Your task to perform on an android device: add a contact in the contacts app Image 0: 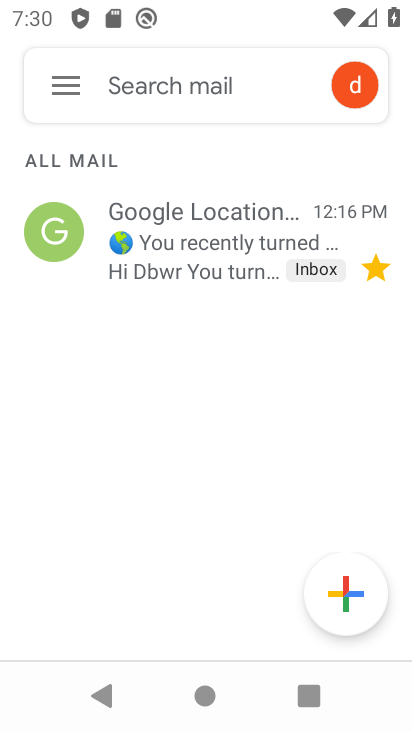
Step 0: press home button
Your task to perform on an android device: add a contact in the contacts app Image 1: 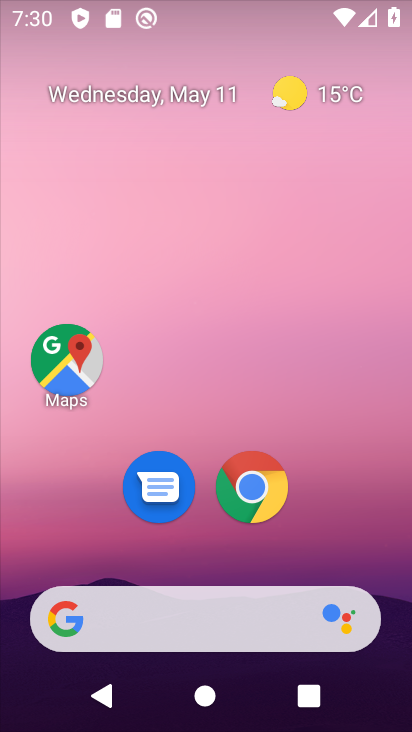
Step 1: drag from (276, 612) to (282, 166)
Your task to perform on an android device: add a contact in the contacts app Image 2: 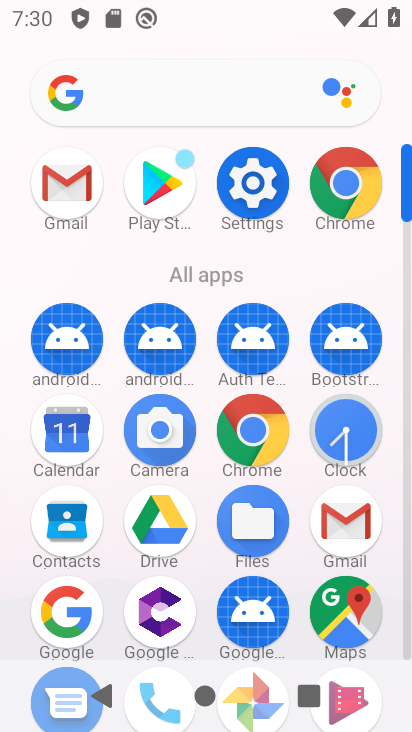
Step 2: drag from (114, 580) to (153, 472)
Your task to perform on an android device: add a contact in the contacts app Image 3: 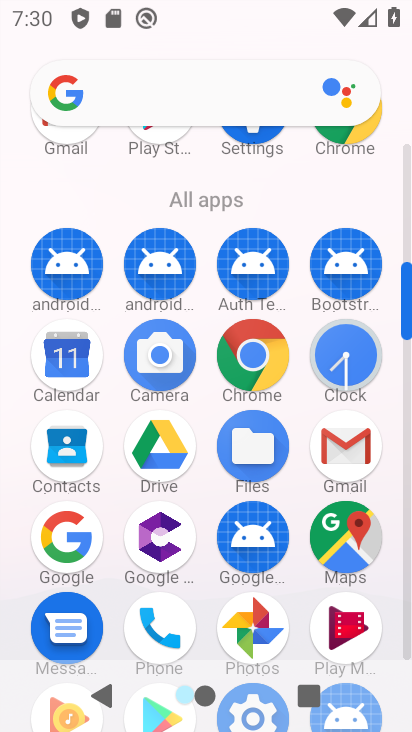
Step 3: click (152, 607)
Your task to perform on an android device: add a contact in the contacts app Image 4: 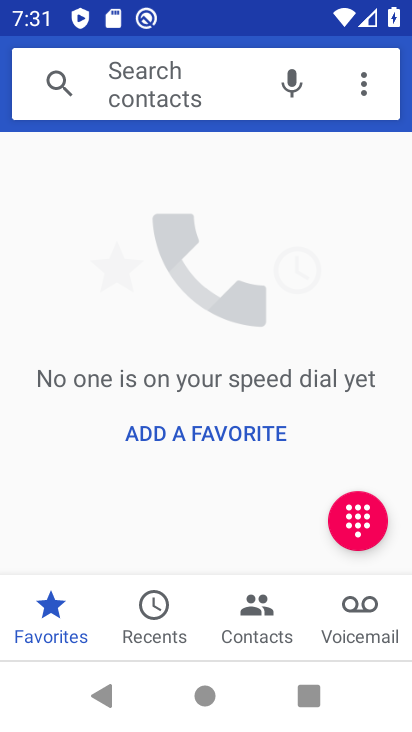
Step 4: click (264, 620)
Your task to perform on an android device: add a contact in the contacts app Image 5: 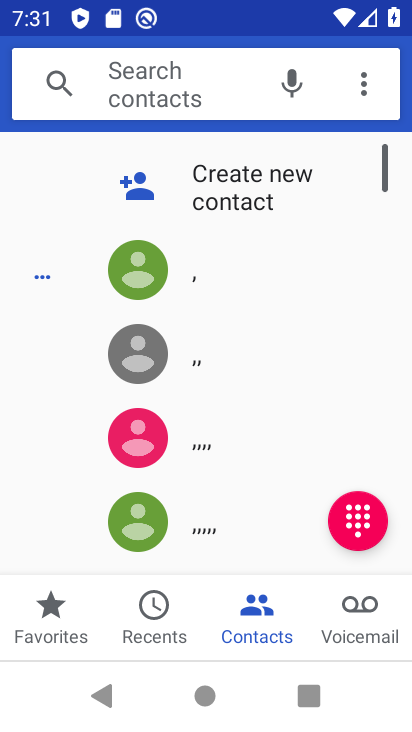
Step 5: click (241, 196)
Your task to perform on an android device: add a contact in the contacts app Image 6: 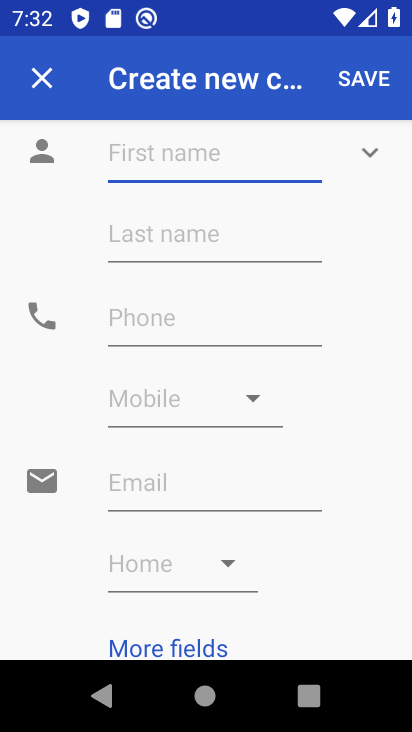
Step 6: click (191, 150)
Your task to perform on an android device: add a contact in the contacts app Image 7: 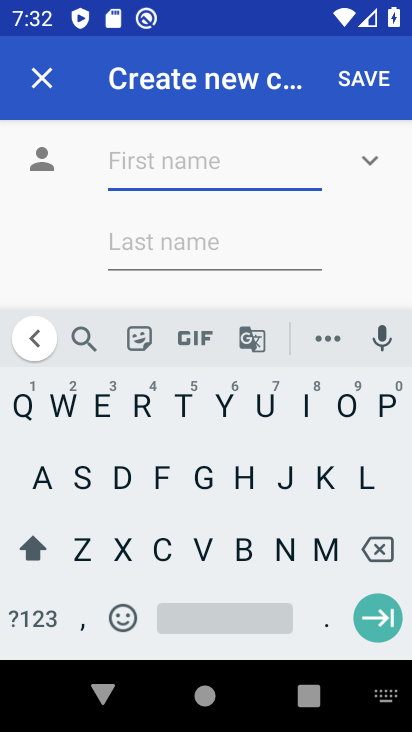
Step 7: click (133, 408)
Your task to perform on an android device: add a contact in the contacts app Image 8: 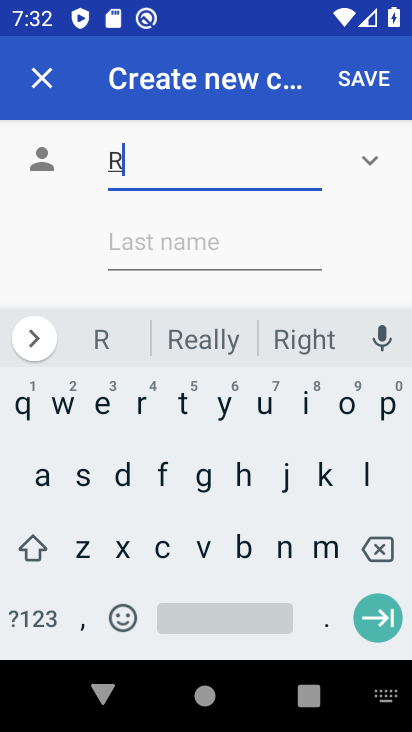
Step 8: click (299, 401)
Your task to perform on an android device: add a contact in the contacts app Image 9: 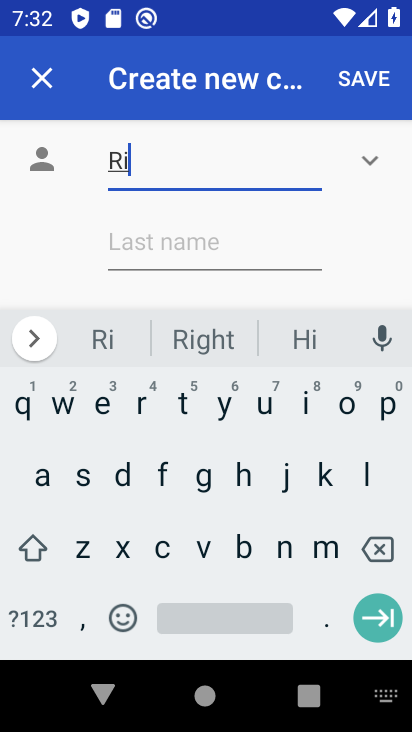
Step 9: click (199, 541)
Your task to perform on an android device: add a contact in the contacts app Image 10: 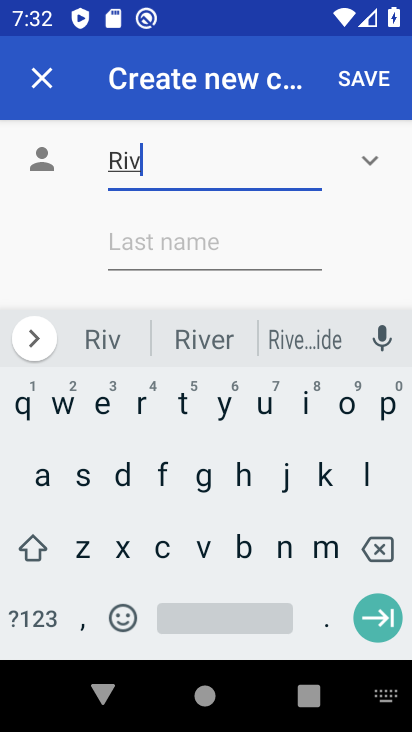
Step 10: click (37, 474)
Your task to perform on an android device: add a contact in the contacts app Image 11: 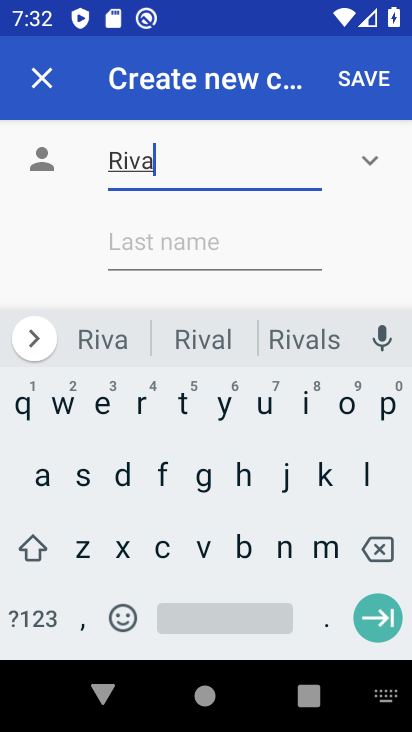
Step 11: drag from (143, 295) to (175, 171)
Your task to perform on an android device: add a contact in the contacts app Image 12: 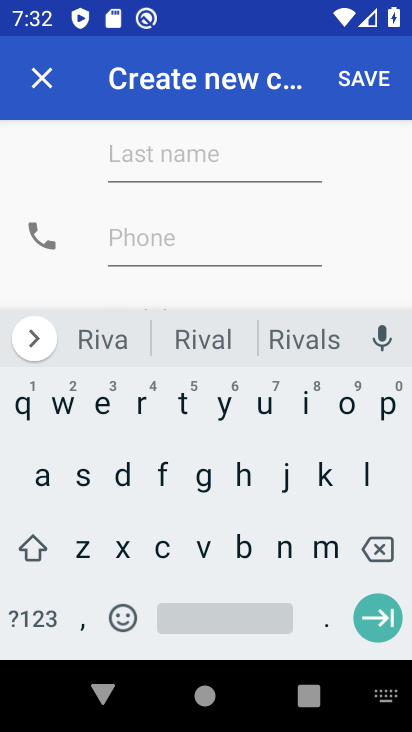
Step 12: click (119, 226)
Your task to perform on an android device: add a contact in the contacts app Image 13: 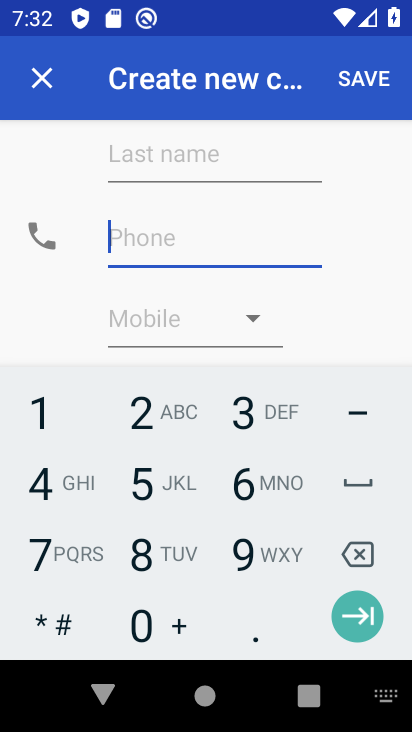
Step 13: click (254, 494)
Your task to perform on an android device: add a contact in the contacts app Image 14: 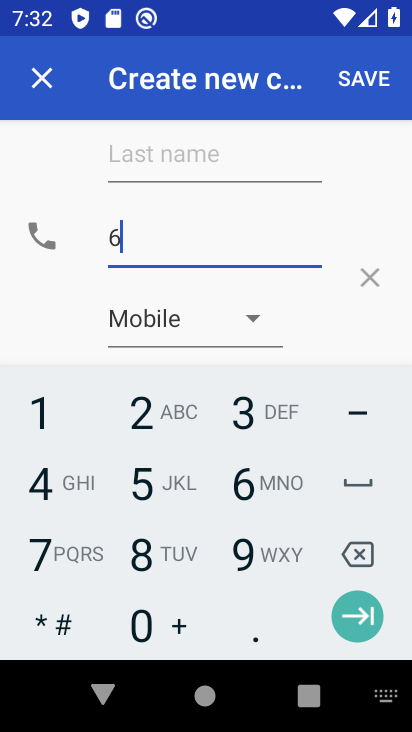
Step 14: click (166, 493)
Your task to perform on an android device: add a contact in the contacts app Image 15: 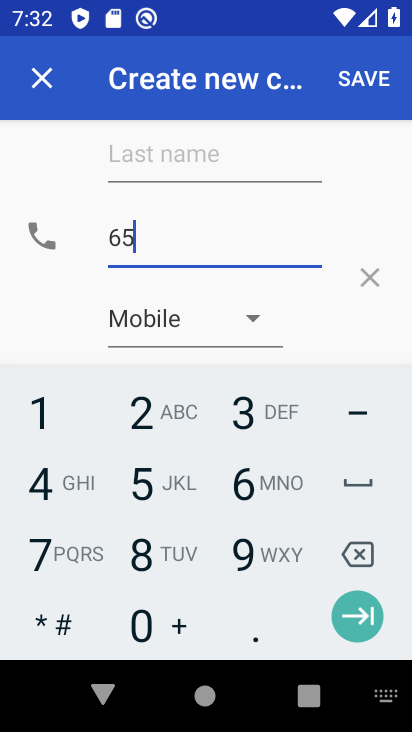
Step 15: click (151, 411)
Your task to perform on an android device: add a contact in the contacts app Image 16: 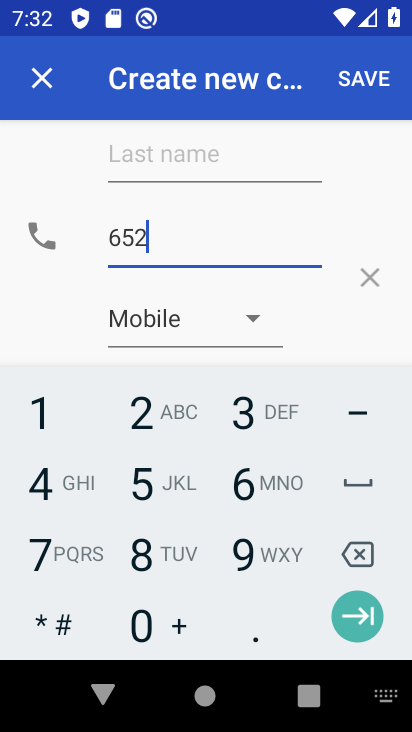
Step 16: click (59, 487)
Your task to perform on an android device: add a contact in the contacts app Image 17: 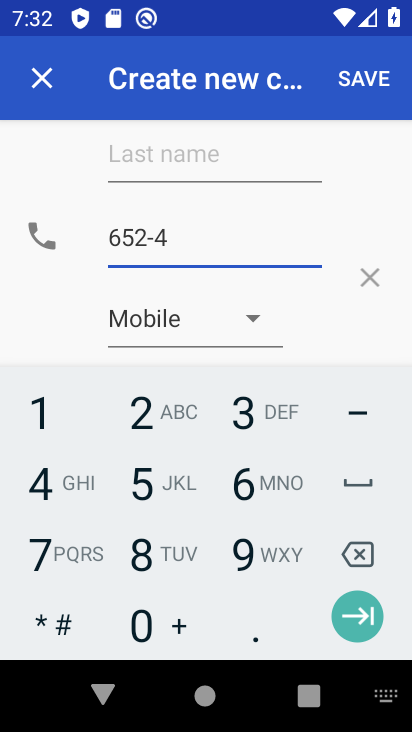
Step 17: click (245, 416)
Your task to perform on an android device: add a contact in the contacts app Image 18: 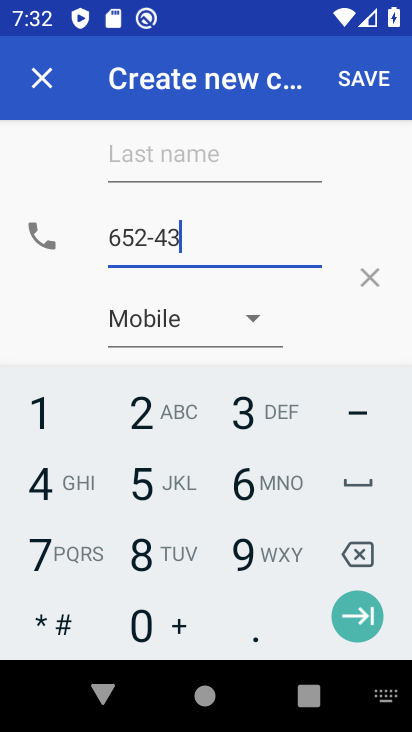
Step 18: click (163, 475)
Your task to perform on an android device: add a contact in the contacts app Image 19: 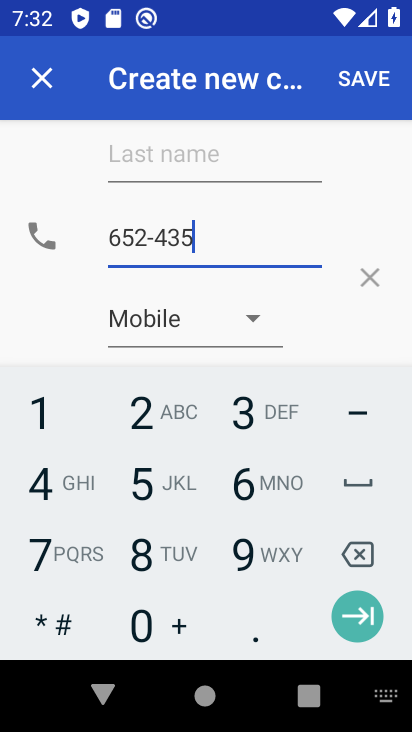
Step 19: click (154, 530)
Your task to perform on an android device: add a contact in the contacts app Image 20: 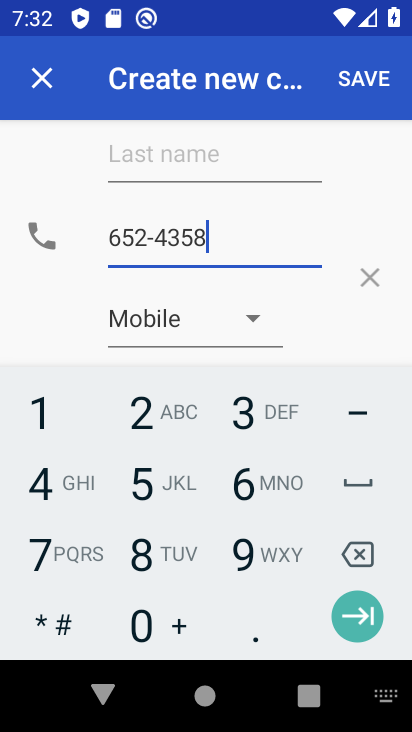
Step 20: click (70, 496)
Your task to perform on an android device: add a contact in the contacts app Image 21: 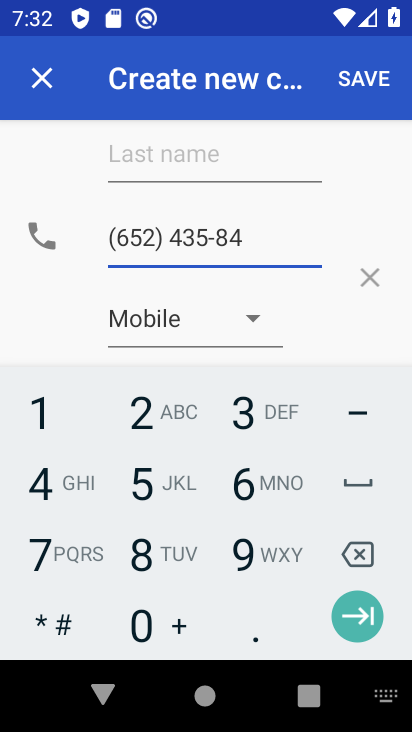
Step 21: click (359, 79)
Your task to perform on an android device: add a contact in the contacts app Image 22: 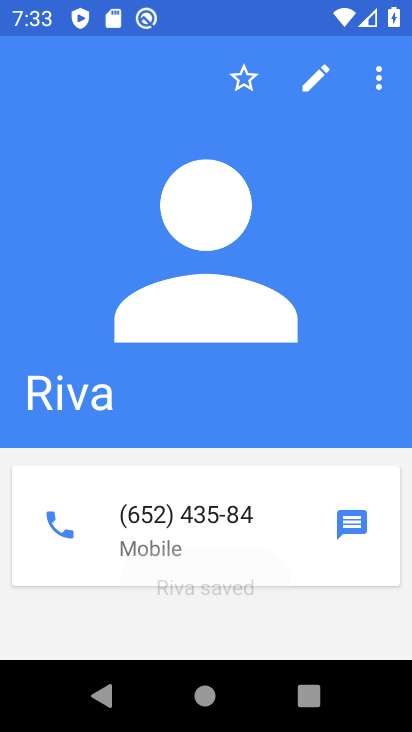
Step 22: task complete